Your task to perform on an android device: When is my next appointment? Image 0: 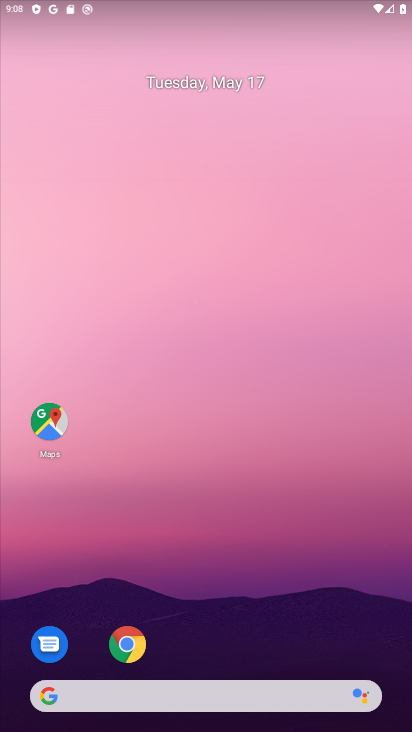
Step 0: click (161, 78)
Your task to perform on an android device: When is my next appointment? Image 1: 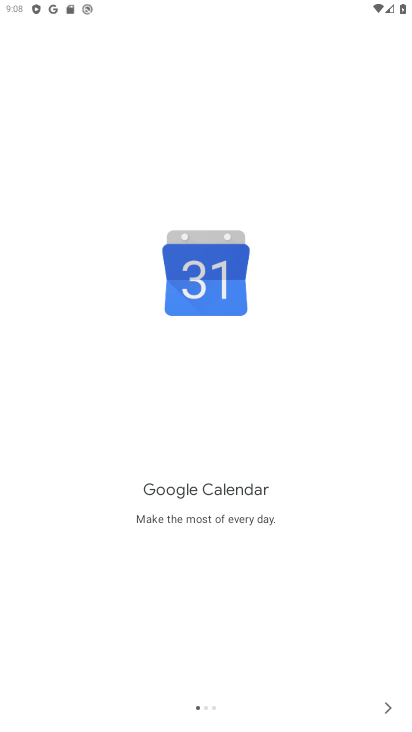
Step 1: click (390, 713)
Your task to perform on an android device: When is my next appointment? Image 2: 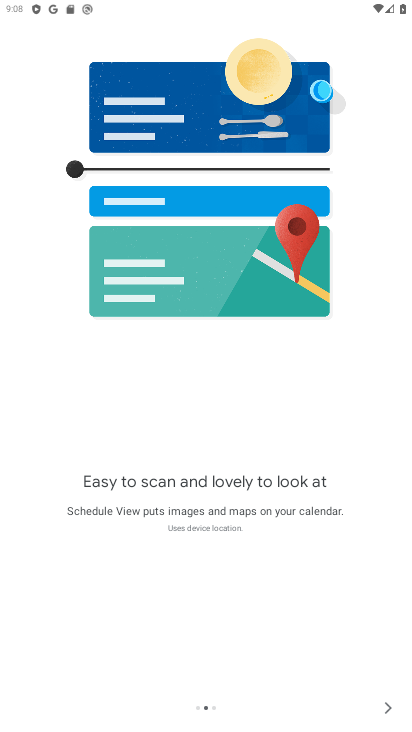
Step 2: click (390, 713)
Your task to perform on an android device: When is my next appointment? Image 3: 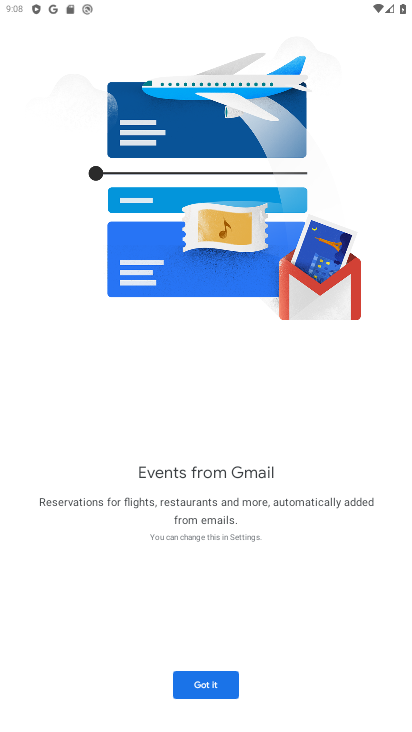
Step 3: click (223, 690)
Your task to perform on an android device: When is my next appointment? Image 4: 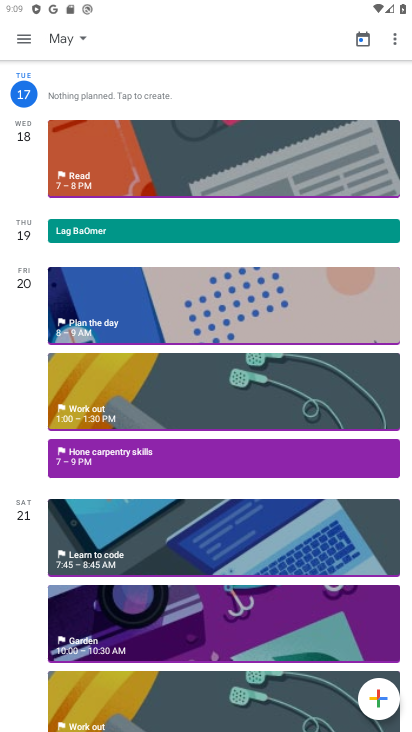
Step 4: task complete